Your task to perform on an android device: Go to sound settings Image 0: 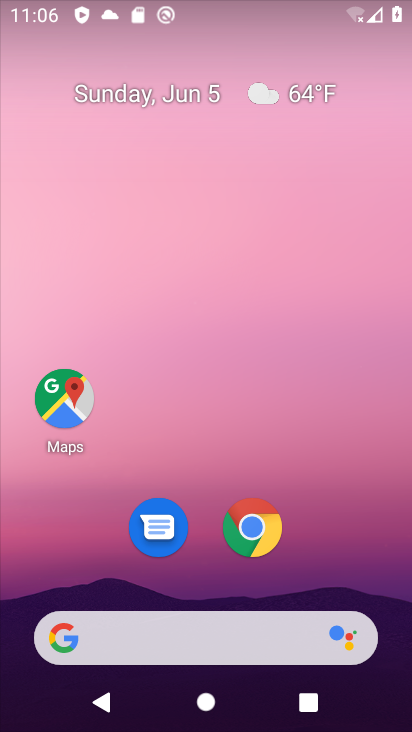
Step 0: drag from (325, 472) to (300, 91)
Your task to perform on an android device: Go to sound settings Image 1: 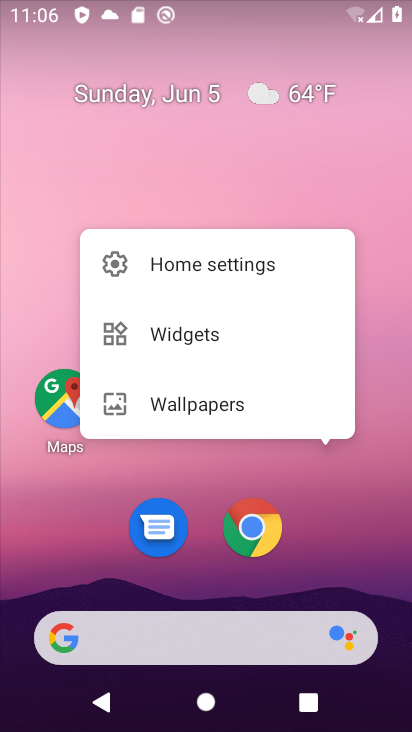
Step 1: click (300, 91)
Your task to perform on an android device: Go to sound settings Image 2: 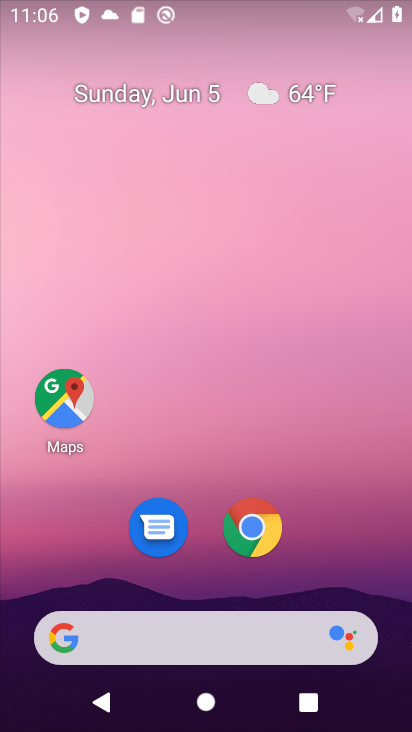
Step 2: drag from (351, 519) to (289, 24)
Your task to perform on an android device: Go to sound settings Image 3: 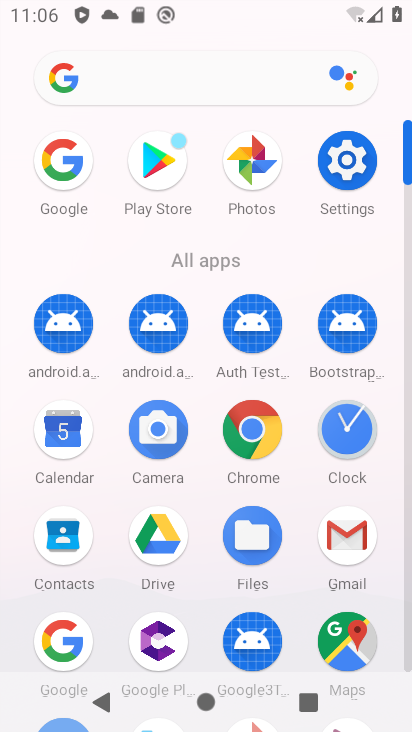
Step 3: click (339, 165)
Your task to perform on an android device: Go to sound settings Image 4: 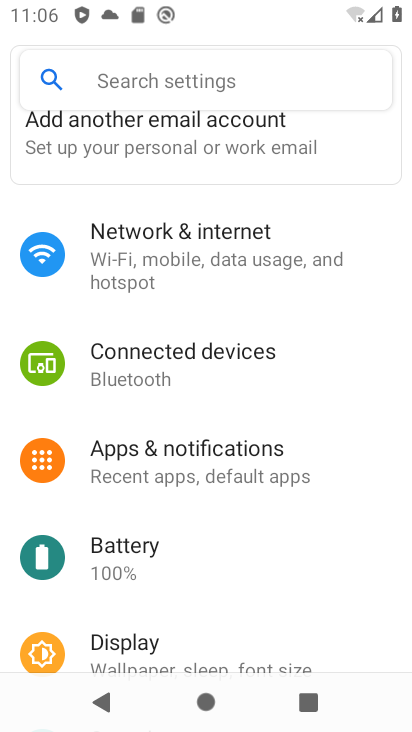
Step 4: drag from (401, 577) to (230, 8)
Your task to perform on an android device: Go to sound settings Image 5: 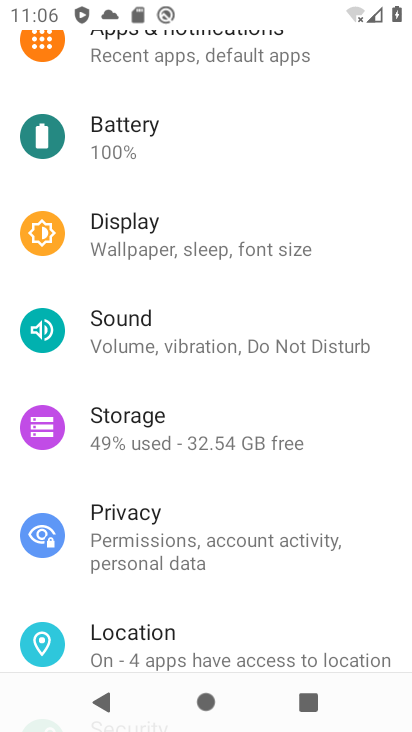
Step 5: click (236, 340)
Your task to perform on an android device: Go to sound settings Image 6: 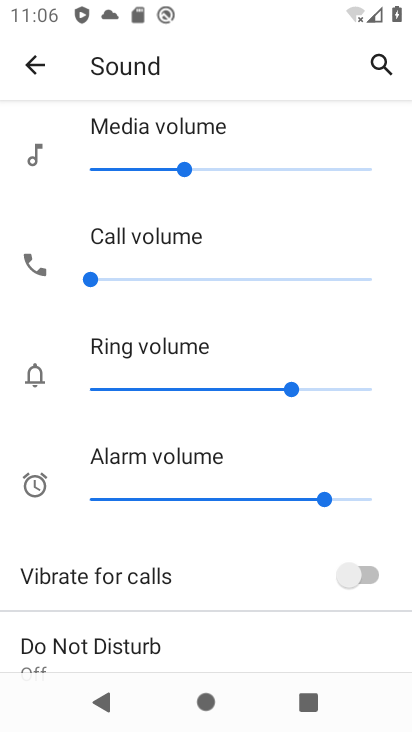
Step 6: task complete